Your task to perform on an android device: What's the price of the Samsung TV? Image 0: 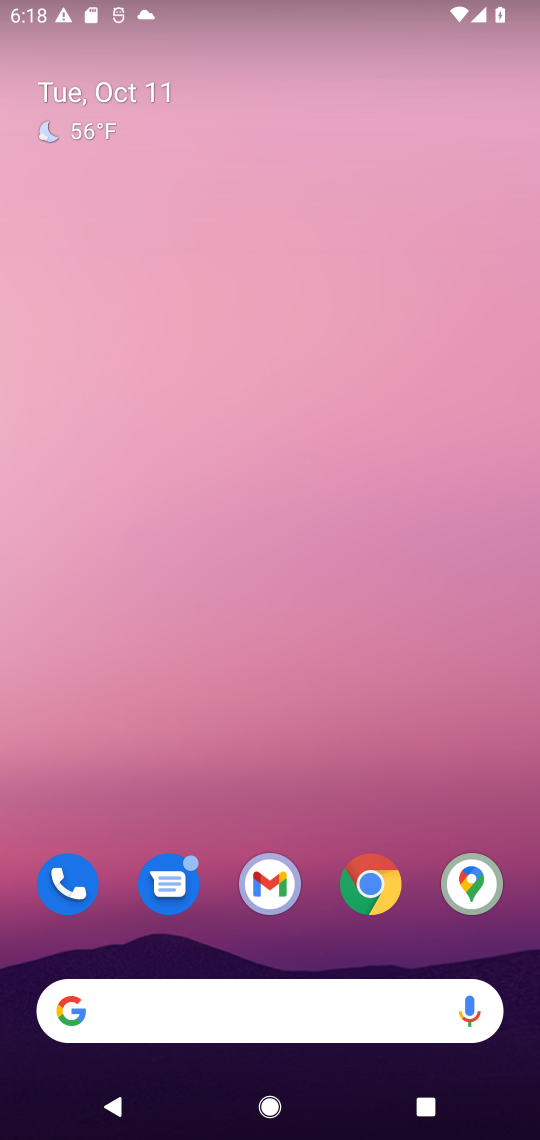
Step 0: drag from (313, 968) to (307, 52)
Your task to perform on an android device: What's the price of the Samsung TV? Image 1: 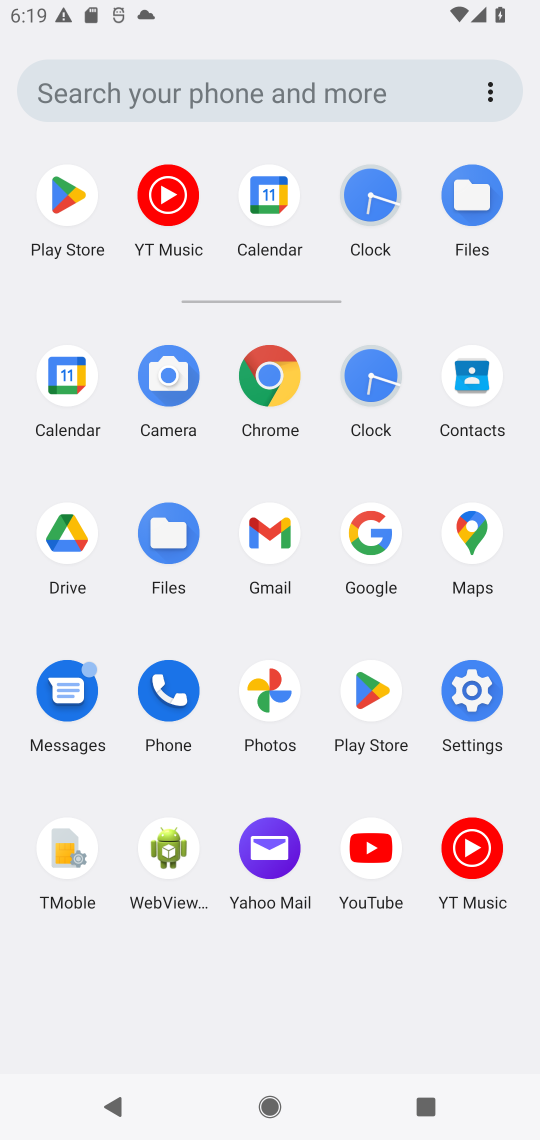
Step 1: click (373, 688)
Your task to perform on an android device: What's the price of the Samsung TV? Image 2: 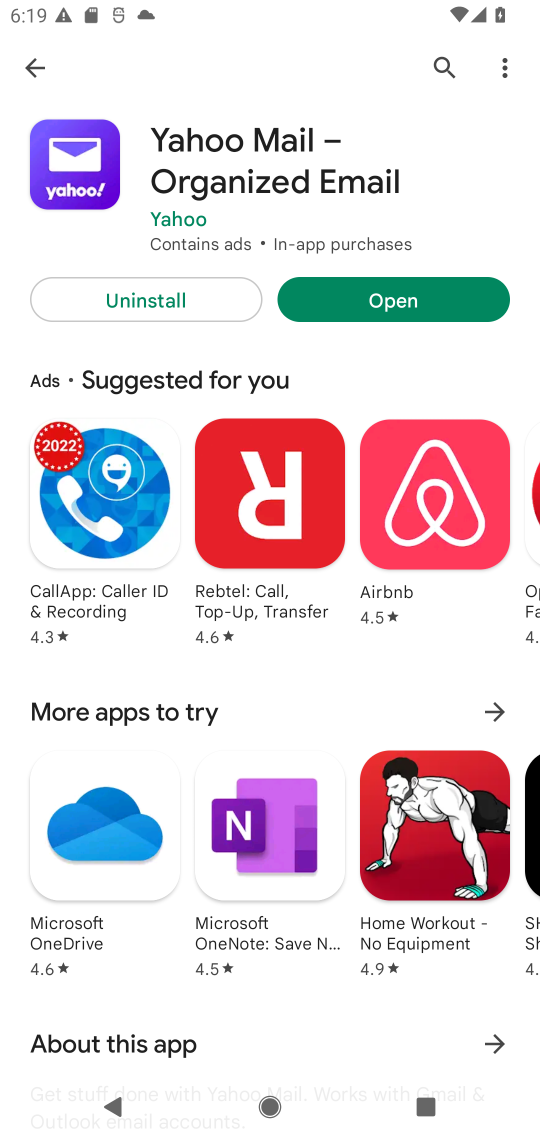
Step 2: press home button
Your task to perform on an android device: What's the price of the Samsung TV? Image 3: 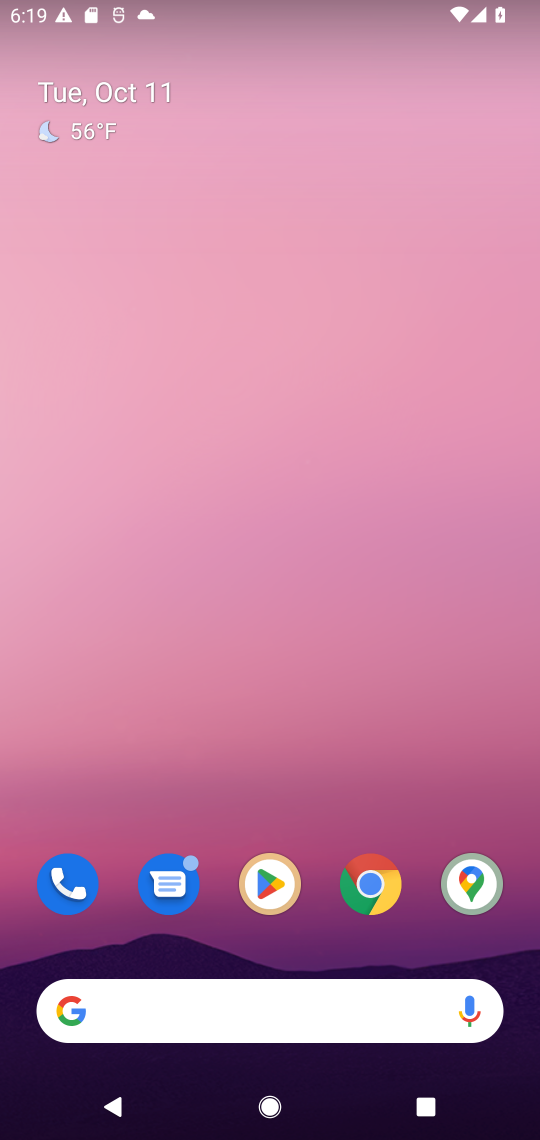
Step 3: drag from (319, 908) to (295, 16)
Your task to perform on an android device: What's the price of the Samsung TV? Image 4: 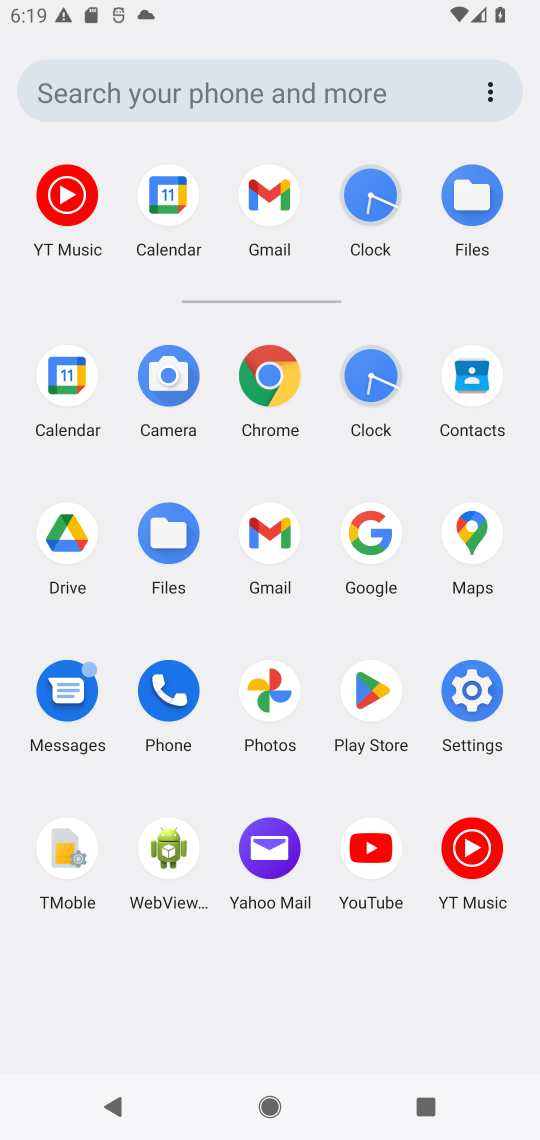
Step 4: click (363, 527)
Your task to perform on an android device: What's the price of the Samsung TV? Image 5: 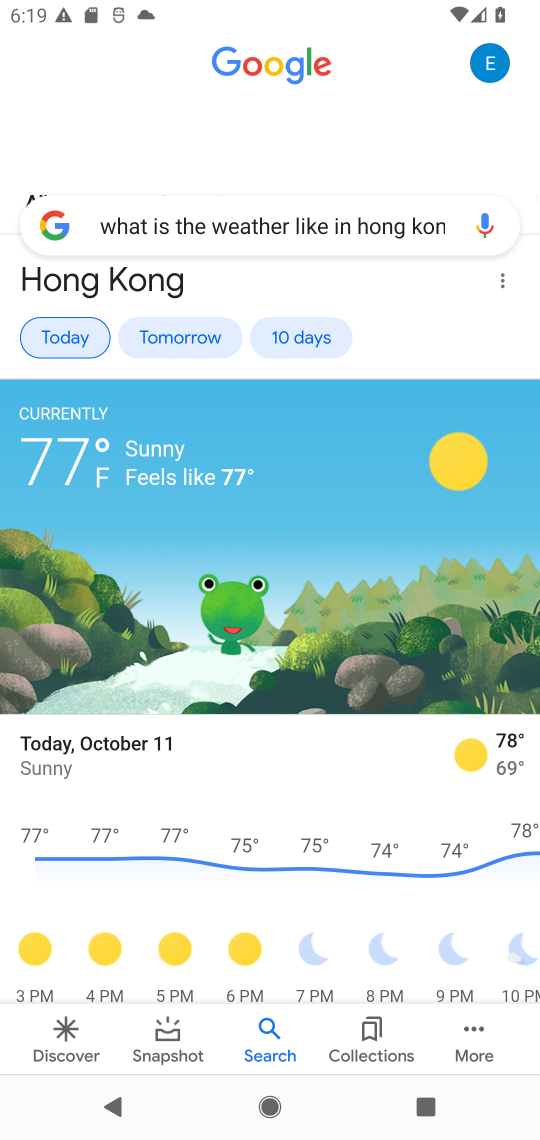
Step 5: click (353, 223)
Your task to perform on an android device: What's the price of the Samsung TV? Image 6: 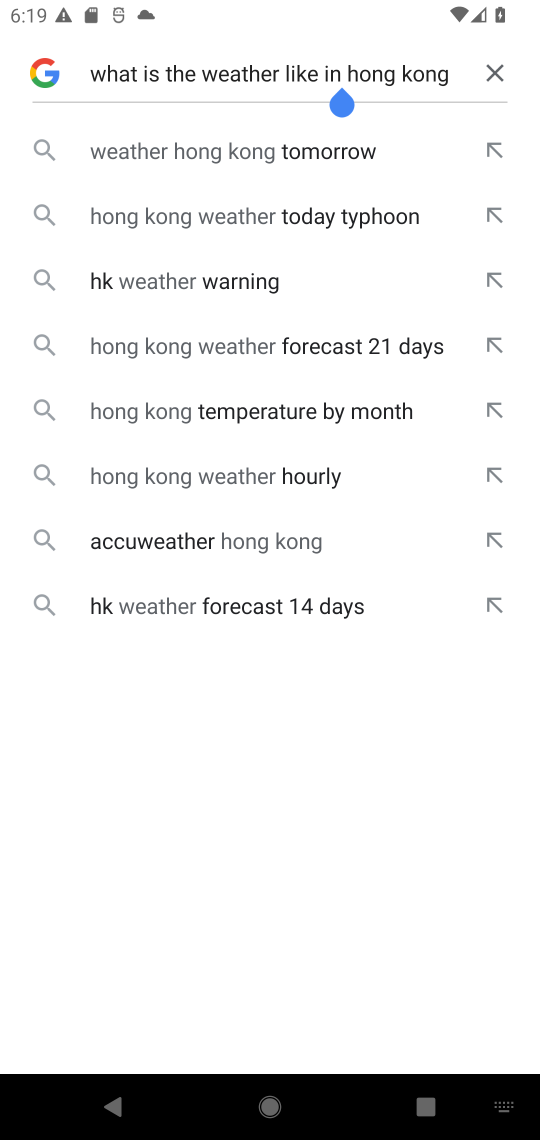
Step 6: click (492, 69)
Your task to perform on an android device: What's the price of the Samsung TV? Image 7: 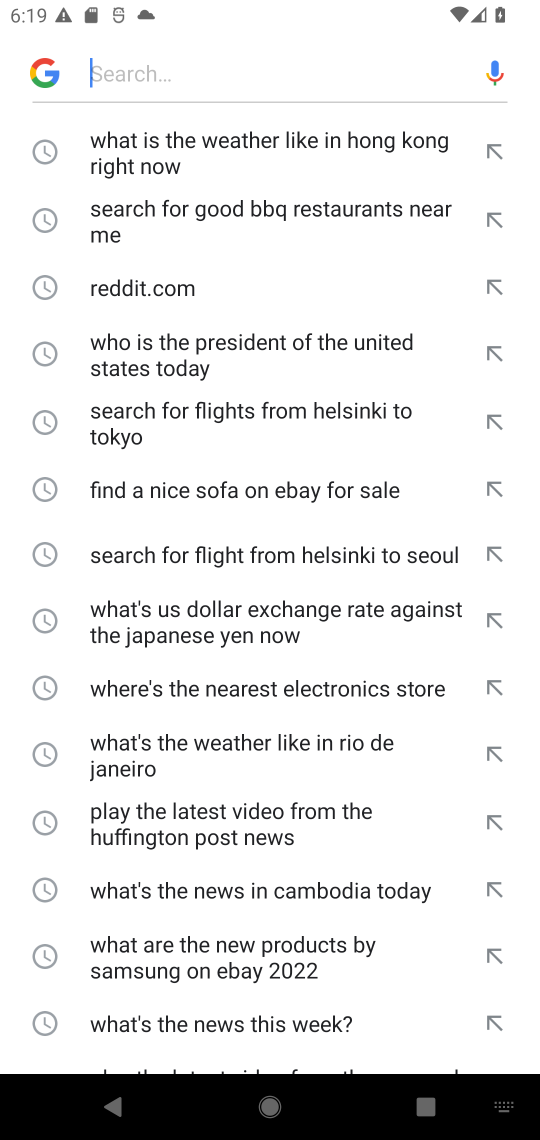
Step 7: type "What's the price of the Samsung TV?"
Your task to perform on an android device: What's the price of the Samsung TV? Image 8: 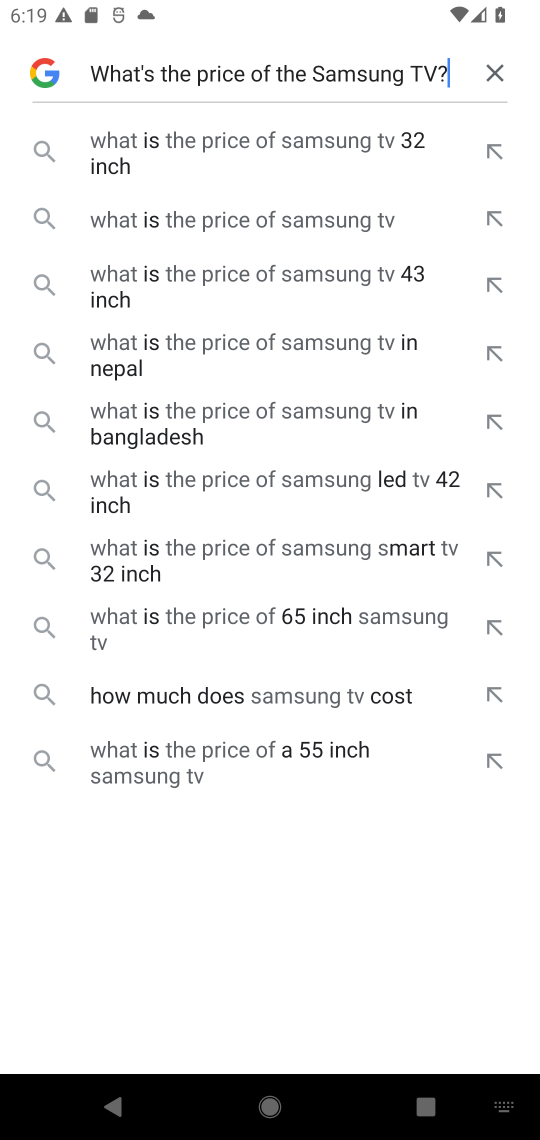
Step 8: click (267, 215)
Your task to perform on an android device: What's the price of the Samsung TV? Image 9: 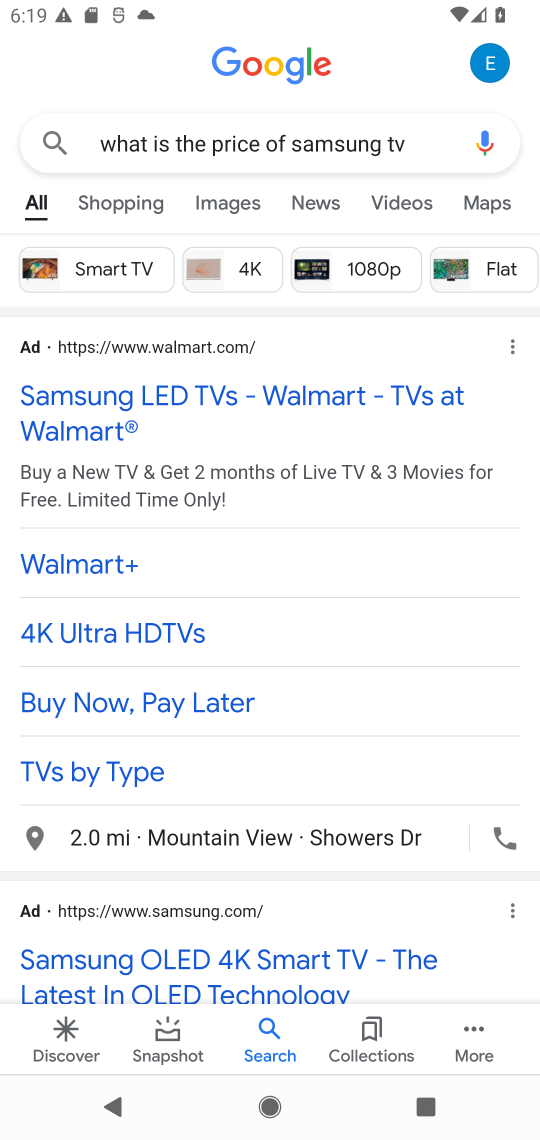
Step 9: task complete